Your task to perform on an android device: Open eBay Image 0: 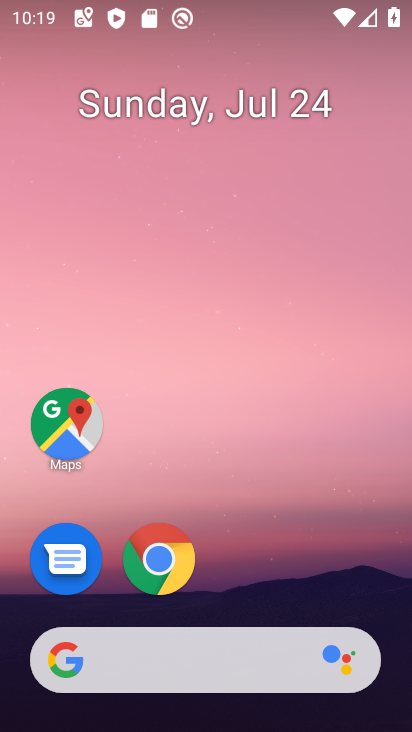
Step 0: click (157, 567)
Your task to perform on an android device: Open eBay Image 1: 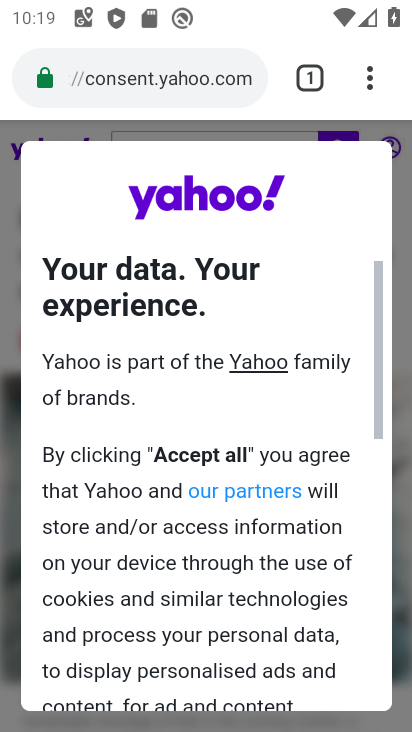
Step 1: click (313, 70)
Your task to perform on an android device: Open eBay Image 2: 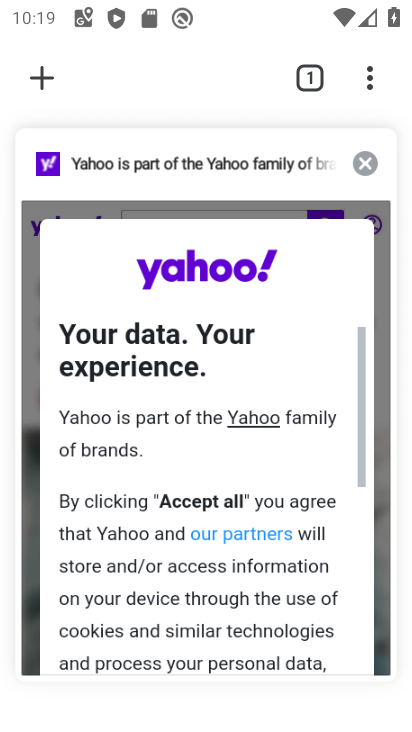
Step 2: click (60, 68)
Your task to perform on an android device: Open eBay Image 3: 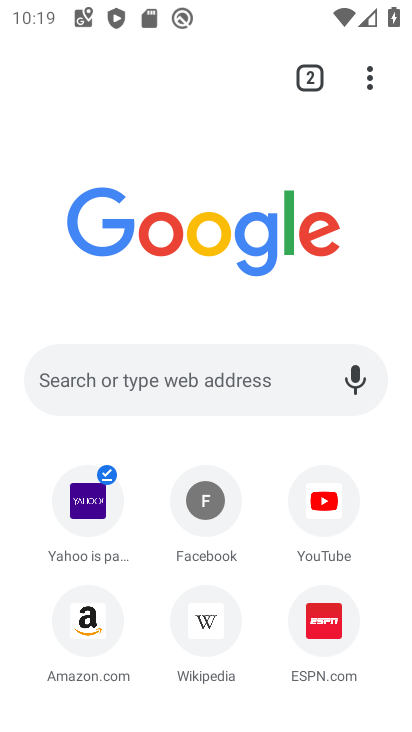
Step 3: click (170, 365)
Your task to perform on an android device: Open eBay Image 4: 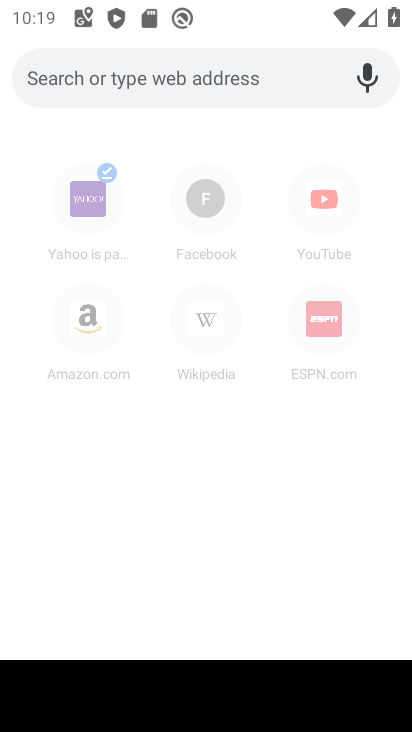
Step 4: type "ebay"
Your task to perform on an android device: Open eBay Image 5: 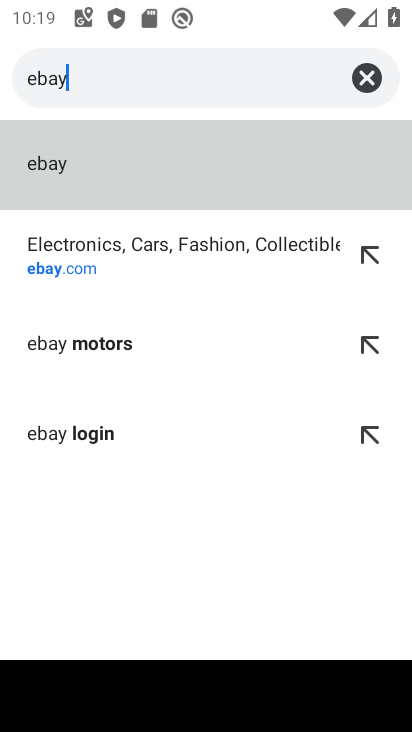
Step 5: click (118, 260)
Your task to perform on an android device: Open eBay Image 6: 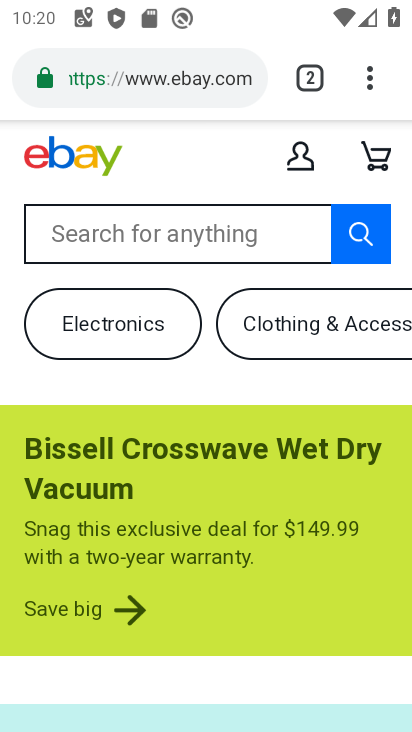
Step 6: task complete